Your task to perform on an android device: Search for vintage wall art on Etsy. Image 0: 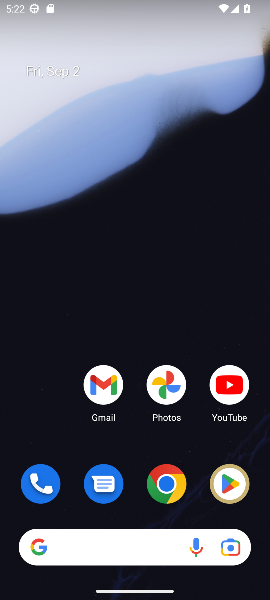
Step 0: click (163, 486)
Your task to perform on an android device: Search for vintage wall art on Etsy. Image 1: 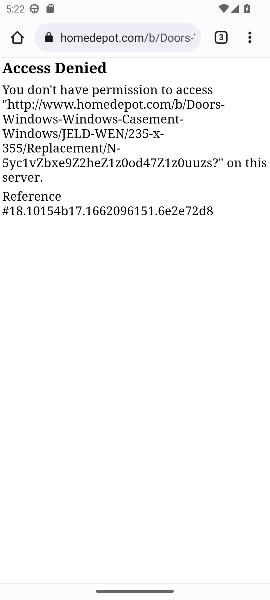
Step 1: click (155, 34)
Your task to perform on an android device: Search for vintage wall art on Etsy. Image 2: 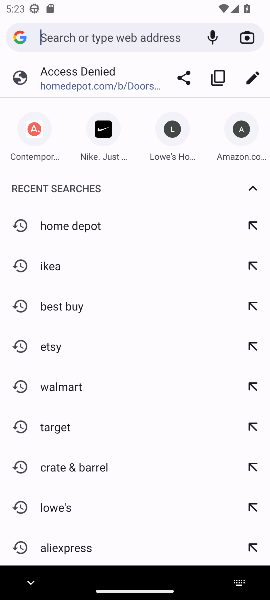
Step 2: type "Etsy"
Your task to perform on an android device: Search for vintage wall art on Etsy. Image 3: 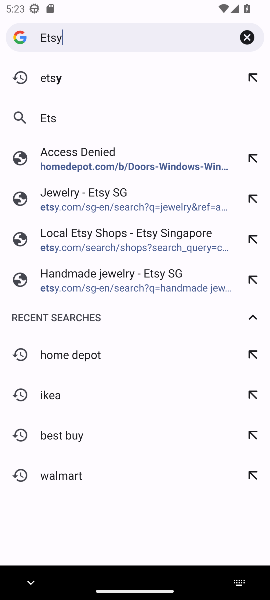
Step 3: press enter
Your task to perform on an android device: Search for vintage wall art on Etsy. Image 4: 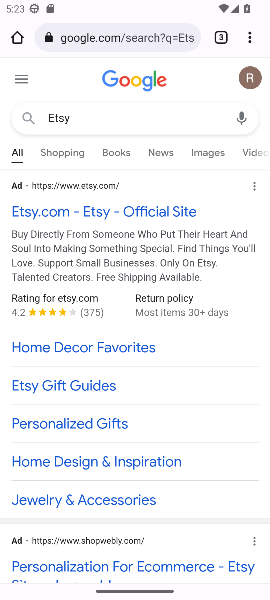
Step 4: drag from (121, 419) to (210, 150)
Your task to perform on an android device: Search for vintage wall art on Etsy. Image 5: 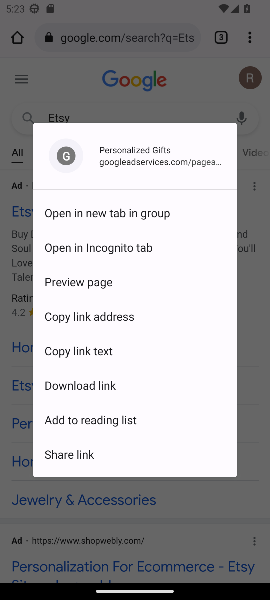
Step 5: click (258, 349)
Your task to perform on an android device: Search for vintage wall art on Etsy. Image 6: 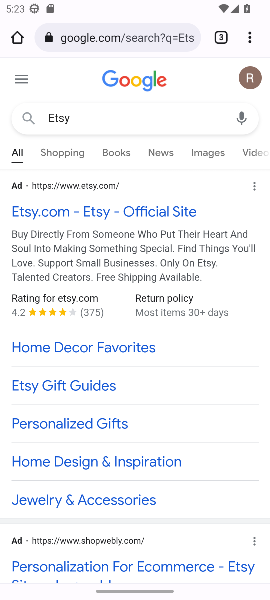
Step 6: drag from (57, 498) to (149, 460)
Your task to perform on an android device: Search for vintage wall art on Etsy. Image 7: 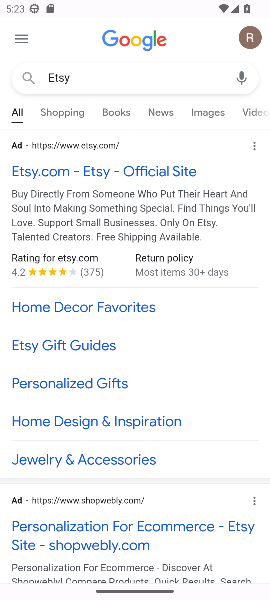
Step 7: click (147, 170)
Your task to perform on an android device: Search for vintage wall art on Etsy. Image 8: 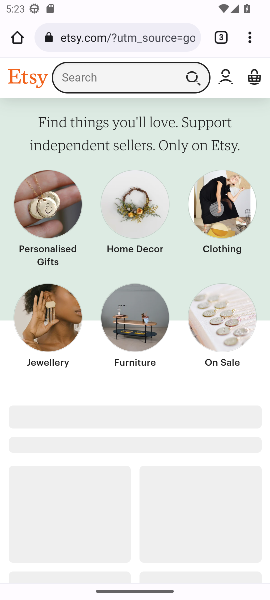
Step 8: click (144, 73)
Your task to perform on an android device: Search for vintage wall art on Etsy. Image 9: 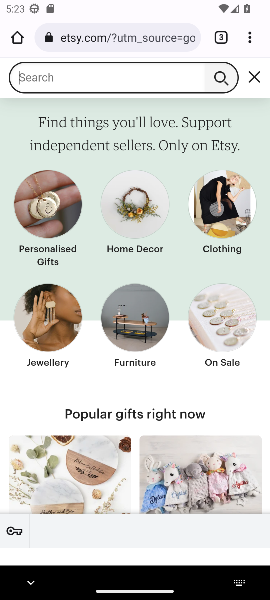
Step 9: type "vintage wall art"
Your task to perform on an android device: Search for vintage wall art on Etsy. Image 10: 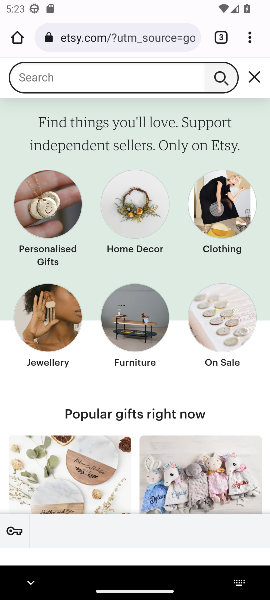
Step 10: press enter
Your task to perform on an android device: Search for vintage wall art on Etsy. Image 11: 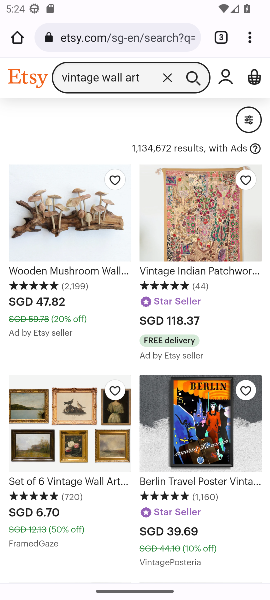
Step 11: task complete